Your task to perform on an android device: Open Android settings Image 0: 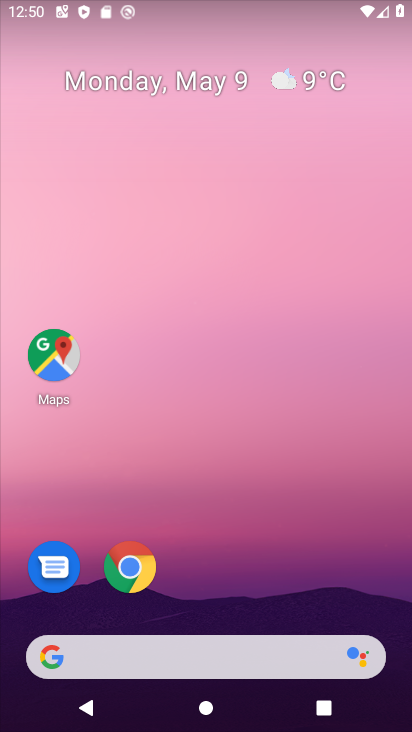
Step 0: drag from (288, 681) to (205, 339)
Your task to perform on an android device: Open Android settings Image 1: 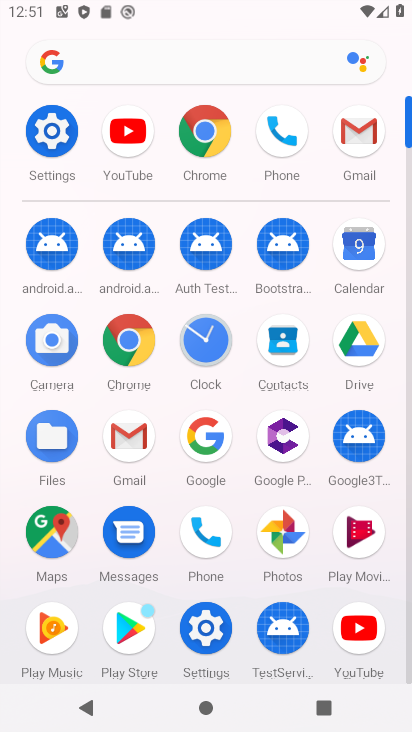
Step 1: click (48, 121)
Your task to perform on an android device: Open Android settings Image 2: 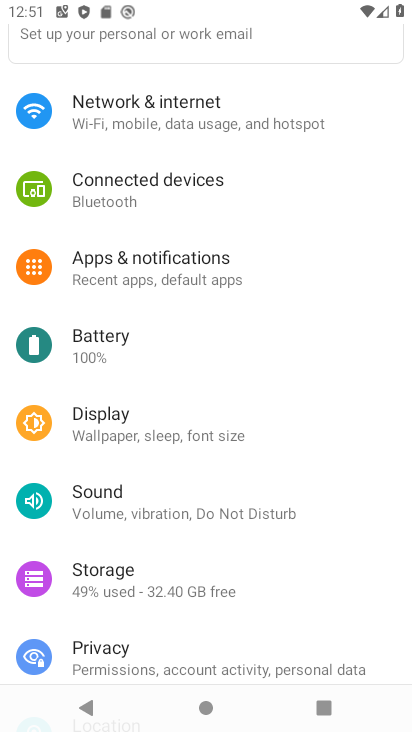
Step 2: drag from (153, 197) to (180, 463)
Your task to perform on an android device: Open Android settings Image 3: 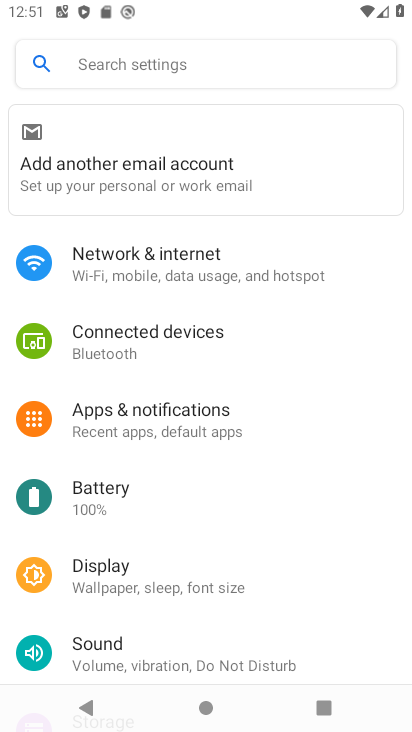
Step 3: click (151, 70)
Your task to perform on an android device: Open Android settings Image 4: 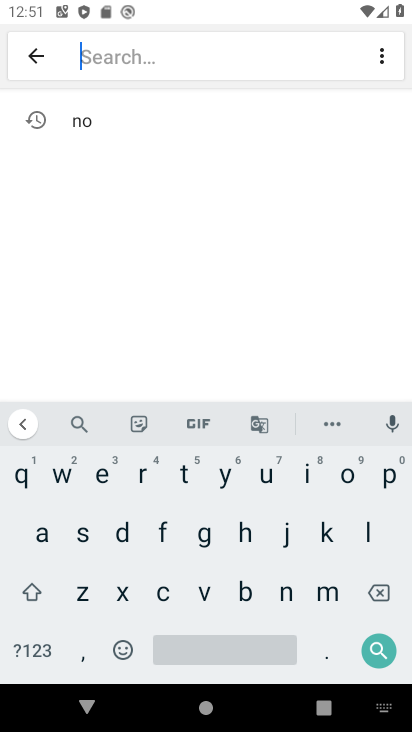
Step 4: click (32, 551)
Your task to perform on an android device: Open Android settings Image 5: 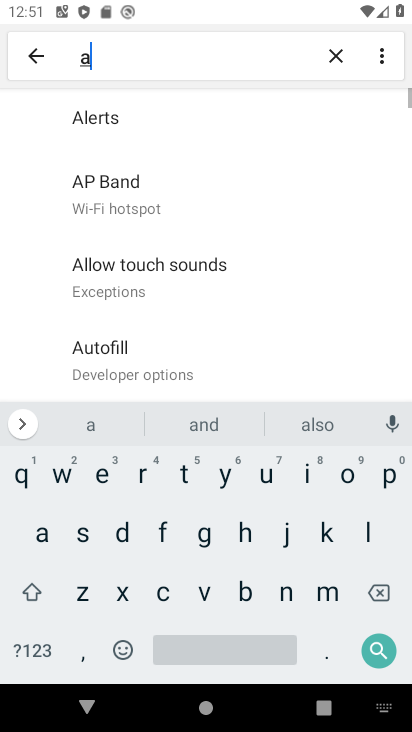
Step 5: click (279, 592)
Your task to perform on an android device: Open Android settings Image 6: 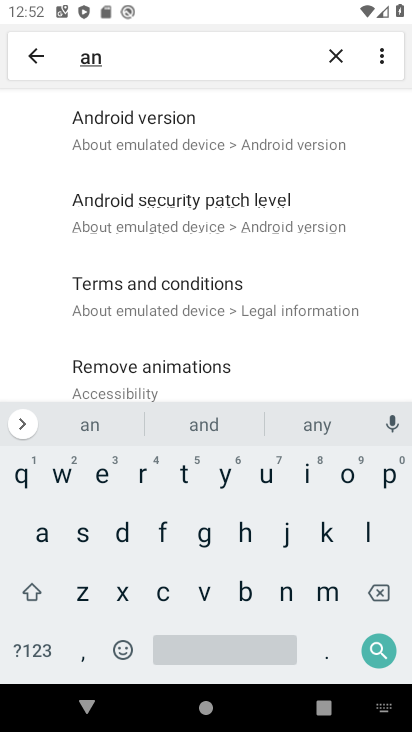
Step 6: click (182, 135)
Your task to perform on an android device: Open Android settings Image 7: 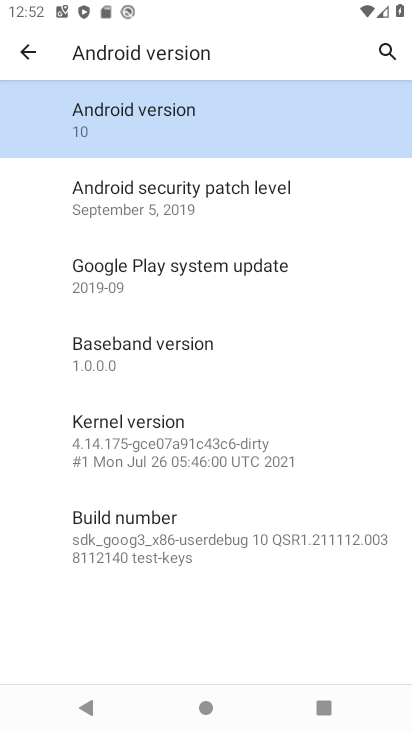
Step 7: click (180, 131)
Your task to perform on an android device: Open Android settings Image 8: 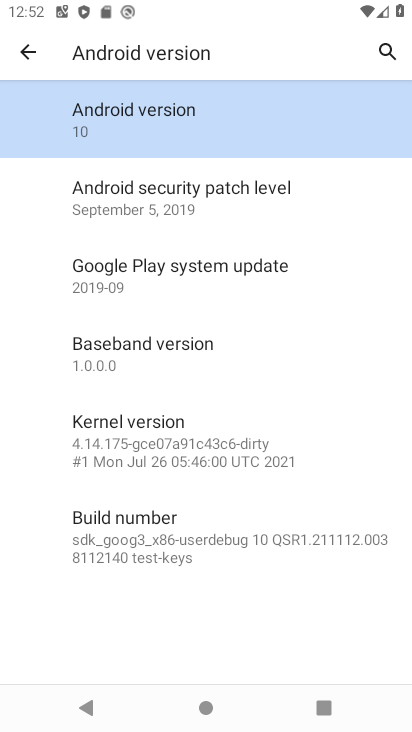
Step 8: task complete